Your task to perform on an android device: turn off airplane mode Image 0: 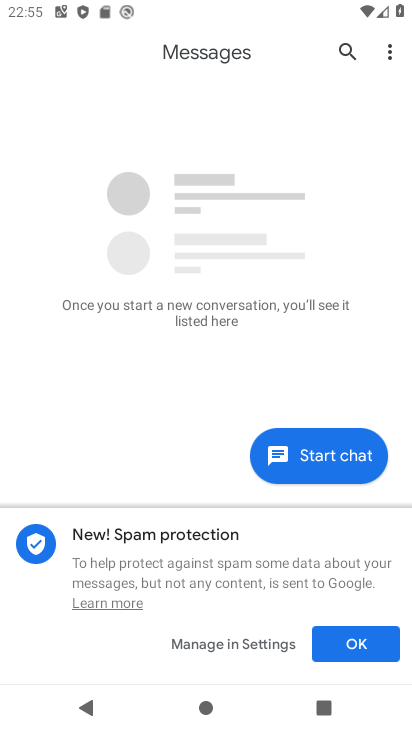
Step 0: press home button
Your task to perform on an android device: turn off airplane mode Image 1: 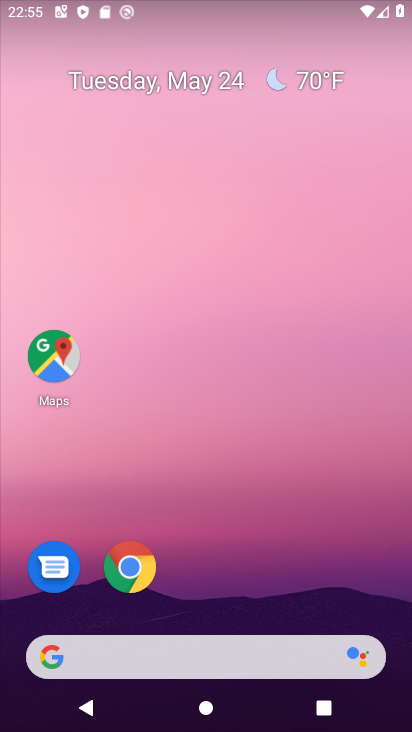
Step 1: drag from (286, 462) to (274, 45)
Your task to perform on an android device: turn off airplane mode Image 2: 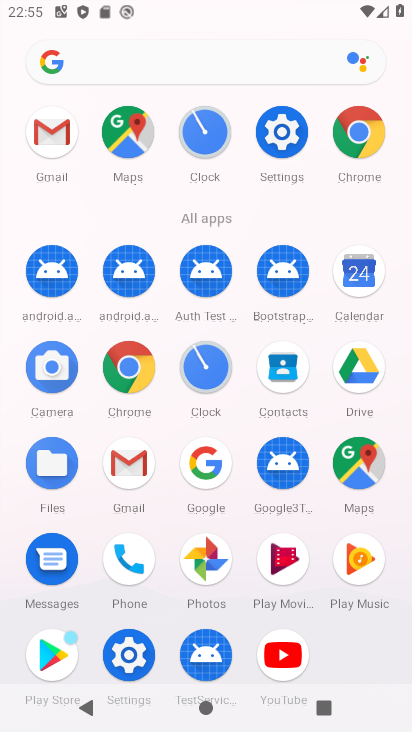
Step 2: click (273, 121)
Your task to perform on an android device: turn off airplane mode Image 3: 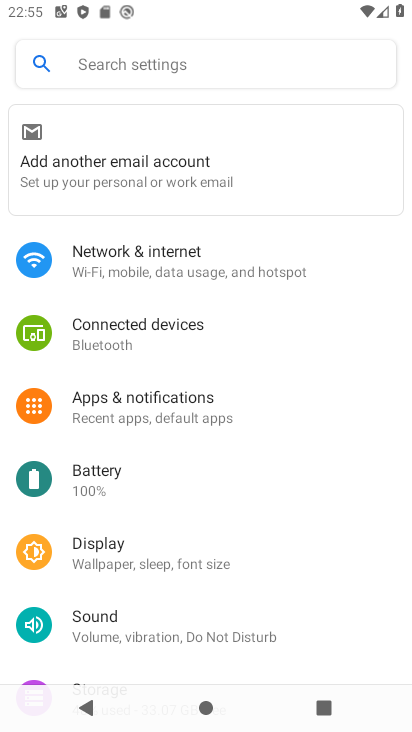
Step 3: click (193, 252)
Your task to perform on an android device: turn off airplane mode Image 4: 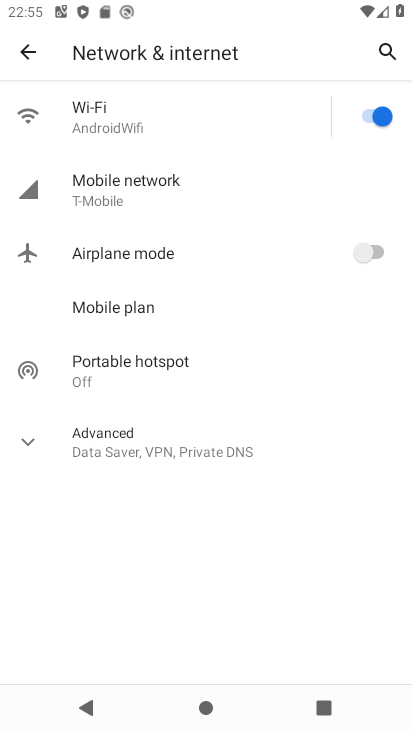
Step 4: task complete